Your task to perform on an android device: Open the web browser Image 0: 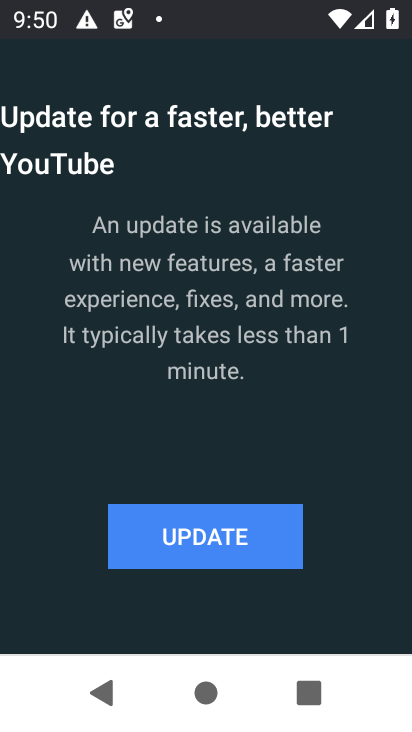
Step 0: press home button
Your task to perform on an android device: Open the web browser Image 1: 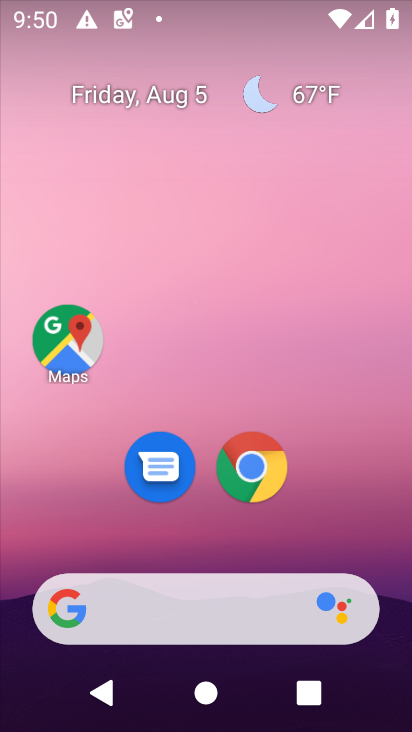
Step 1: click (252, 463)
Your task to perform on an android device: Open the web browser Image 2: 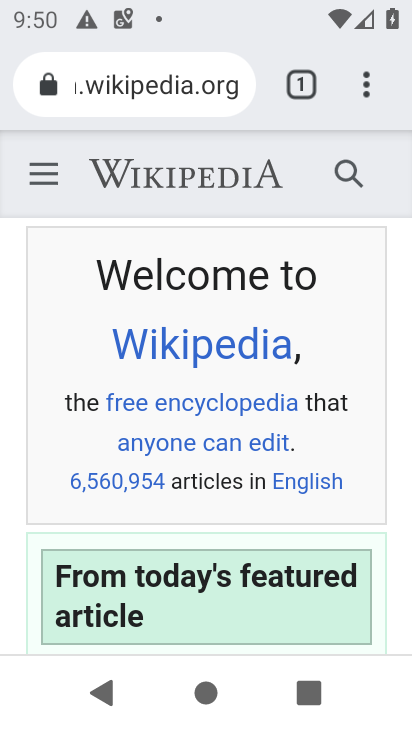
Step 2: task complete